Your task to perform on an android device: turn on the 12-hour format for clock Image 0: 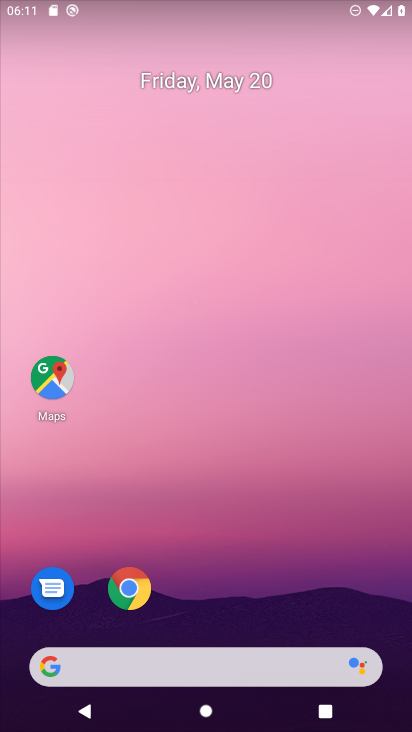
Step 0: drag from (205, 584) to (182, 253)
Your task to perform on an android device: turn on the 12-hour format for clock Image 1: 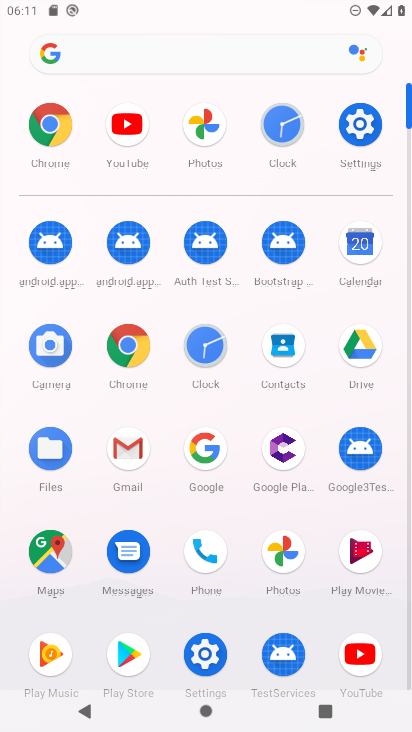
Step 1: click (187, 373)
Your task to perform on an android device: turn on the 12-hour format for clock Image 2: 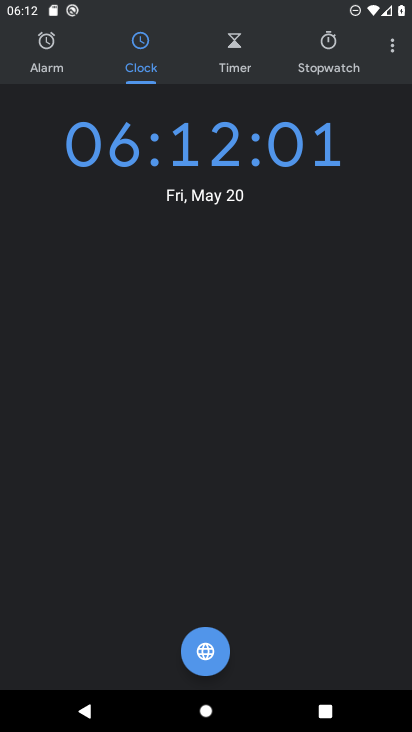
Step 2: click (384, 40)
Your task to perform on an android device: turn on the 12-hour format for clock Image 3: 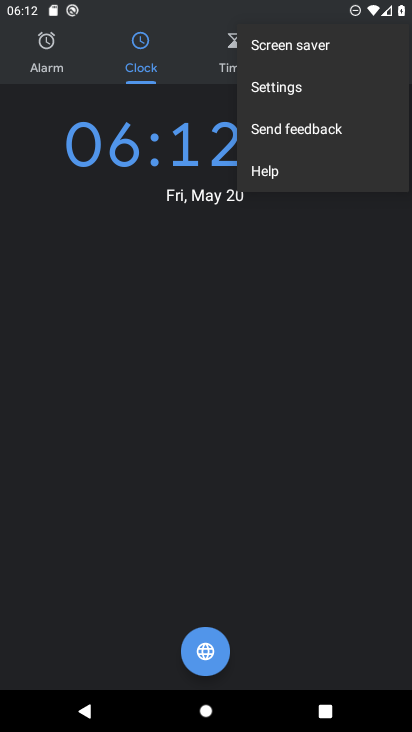
Step 3: click (264, 74)
Your task to perform on an android device: turn on the 12-hour format for clock Image 4: 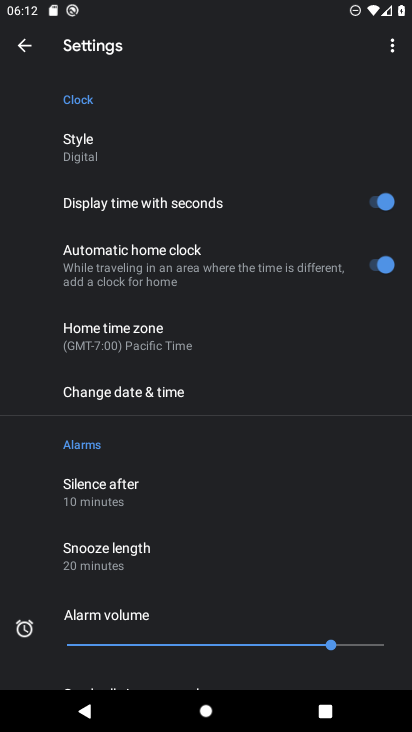
Step 4: click (123, 402)
Your task to perform on an android device: turn on the 12-hour format for clock Image 5: 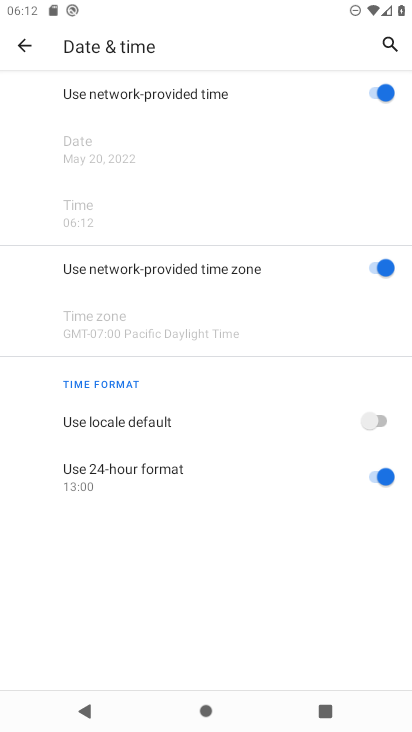
Step 5: click (371, 486)
Your task to perform on an android device: turn on the 12-hour format for clock Image 6: 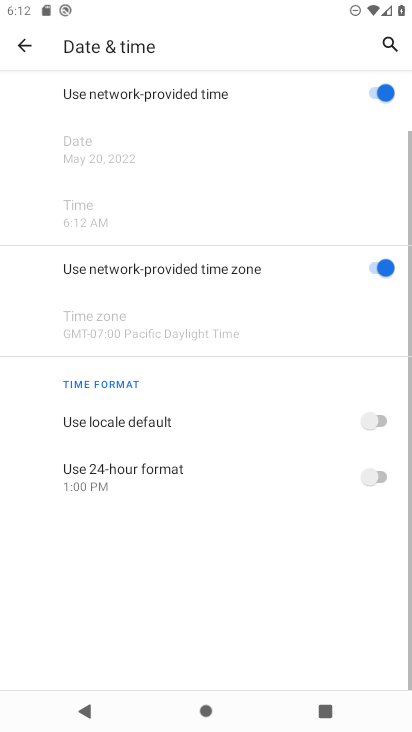
Step 6: click (377, 420)
Your task to perform on an android device: turn on the 12-hour format for clock Image 7: 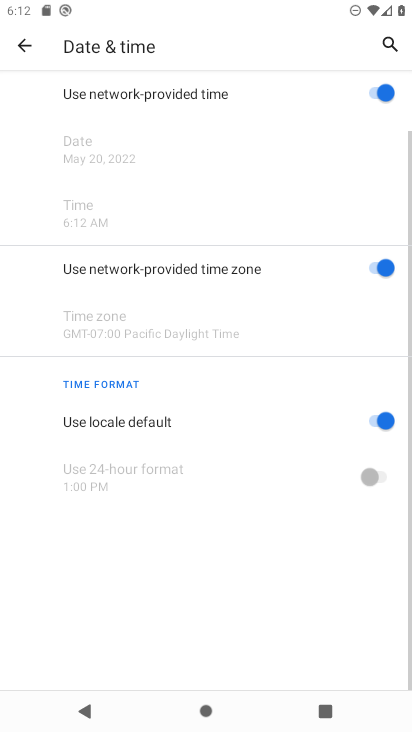
Step 7: task complete